Your task to perform on an android device: Check the weather Image 0: 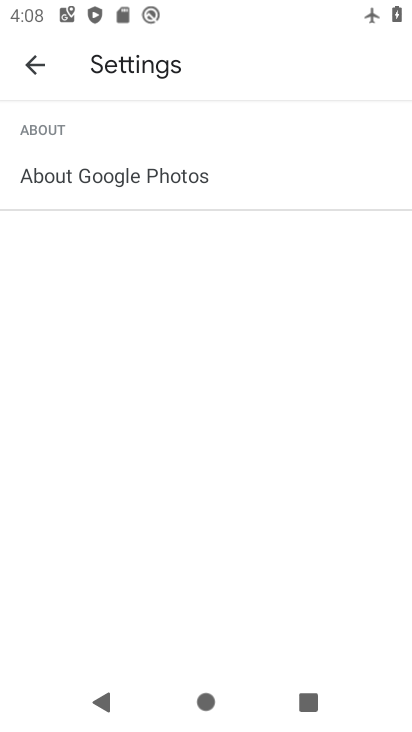
Step 0: press home button
Your task to perform on an android device: Check the weather Image 1: 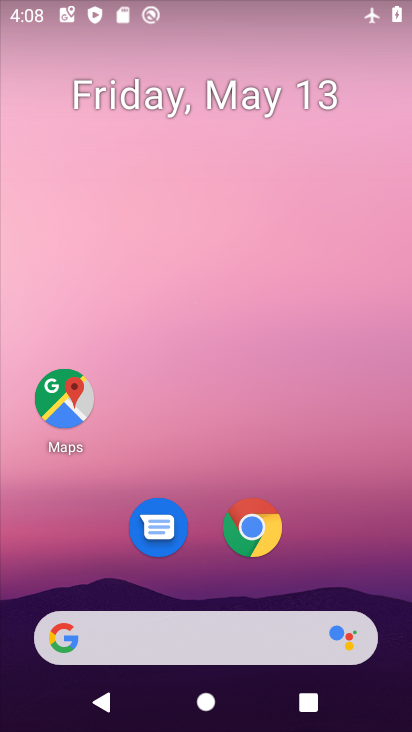
Step 1: click (229, 633)
Your task to perform on an android device: Check the weather Image 2: 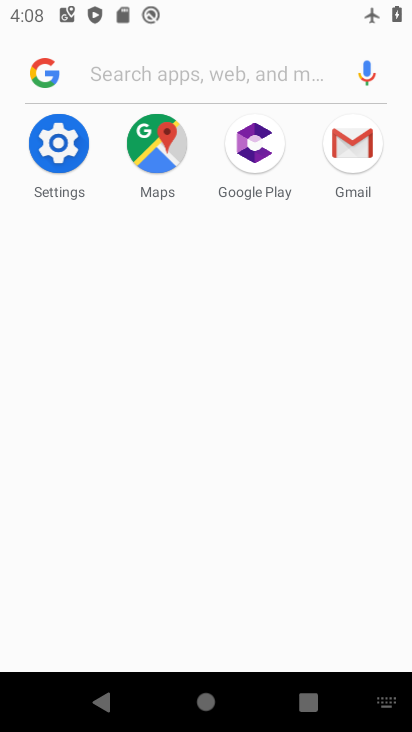
Step 2: task complete